Your task to perform on an android device: What's the weather going to be this weekend? Image 0: 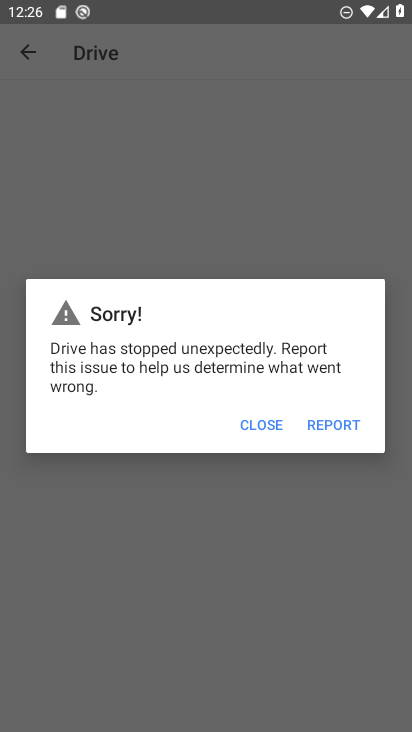
Step 0: press home button
Your task to perform on an android device: What's the weather going to be this weekend? Image 1: 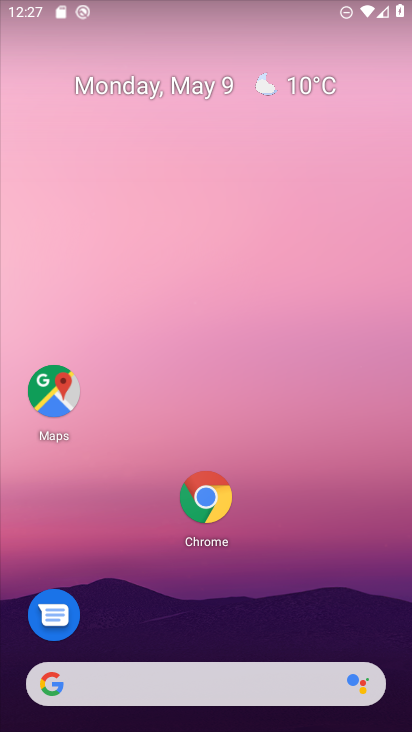
Step 1: drag from (342, 628) to (302, 173)
Your task to perform on an android device: What's the weather going to be this weekend? Image 2: 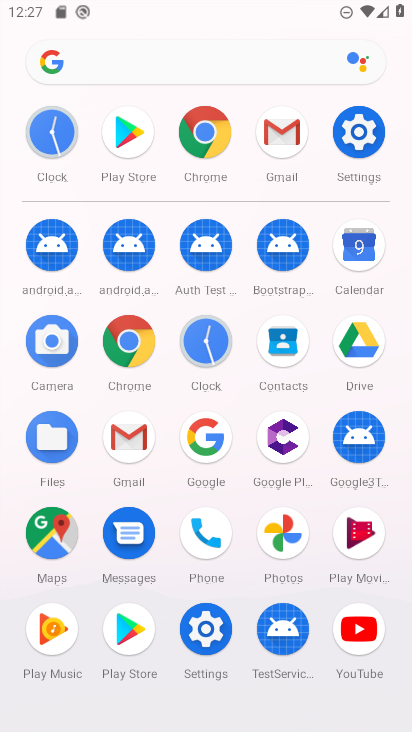
Step 2: press home button
Your task to perform on an android device: What's the weather going to be this weekend? Image 3: 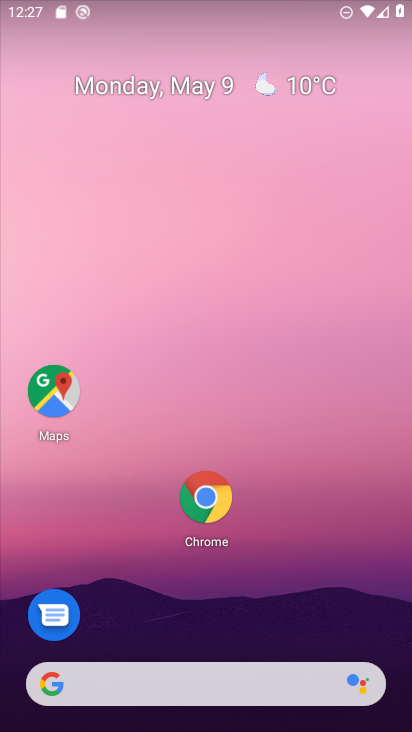
Step 3: click (313, 92)
Your task to perform on an android device: What's the weather going to be this weekend? Image 4: 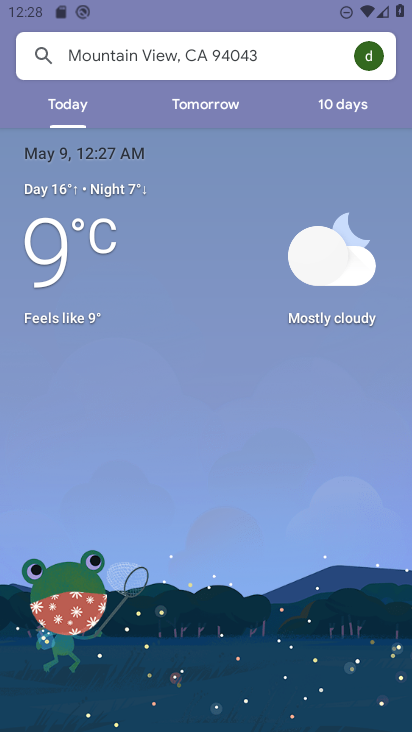
Step 4: click (339, 104)
Your task to perform on an android device: What's the weather going to be this weekend? Image 5: 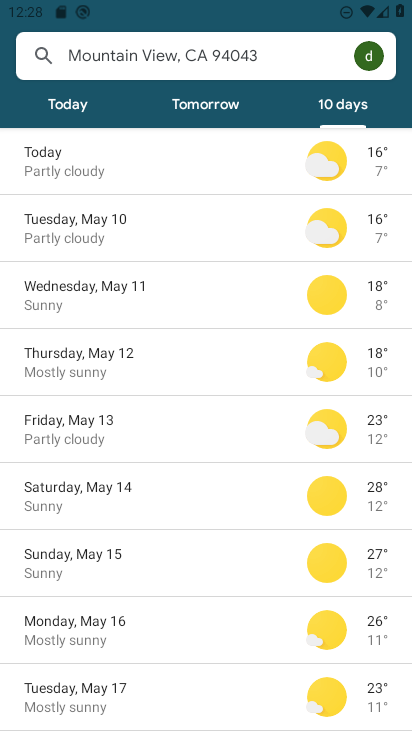
Step 5: task complete